Your task to perform on an android device: toggle pop-ups in chrome Image 0: 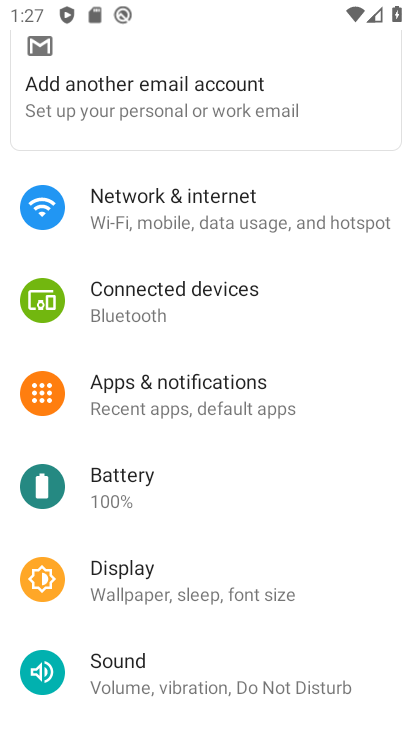
Step 0: press back button
Your task to perform on an android device: toggle pop-ups in chrome Image 1: 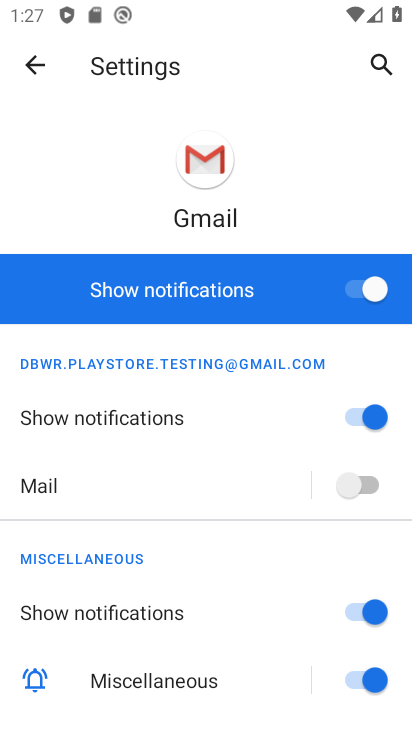
Step 1: drag from (207, 657) to (254, 154)
Your task to perform on an android device: toggle pop-ups in chrome Image 2: 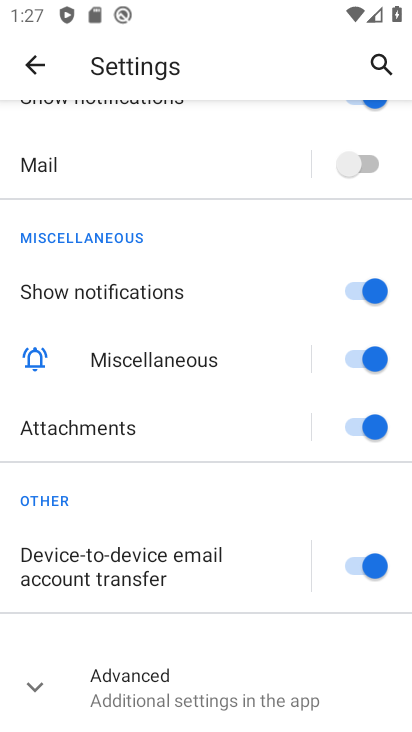
Step 2: drag from (170, 622) to (242, 152)
Your task to perform on an android device: toggle pop-ups in chrome Image 3: 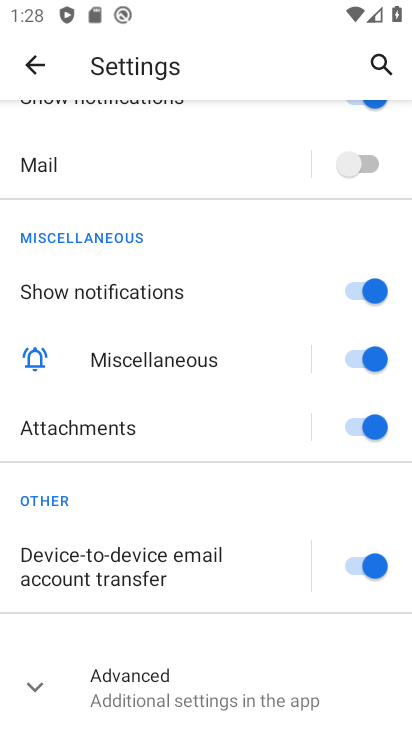
Step 3: press back button
Your task to perform on an android device: toggle pop-ups in chrome Image 4: 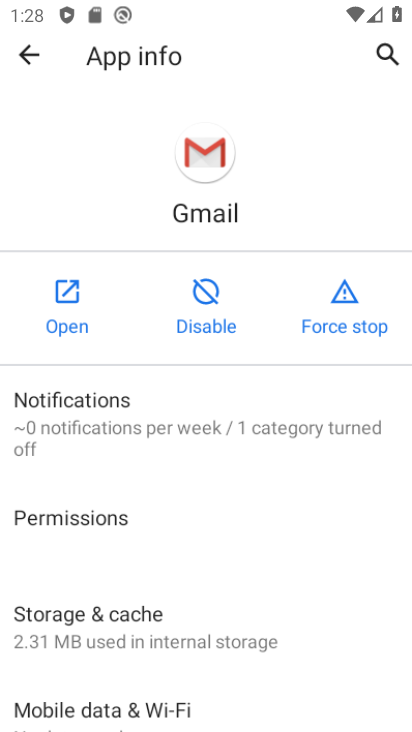
Step 4: press back button
Your task to perform on an android device: toggle pop-ups in chrome Image 5: 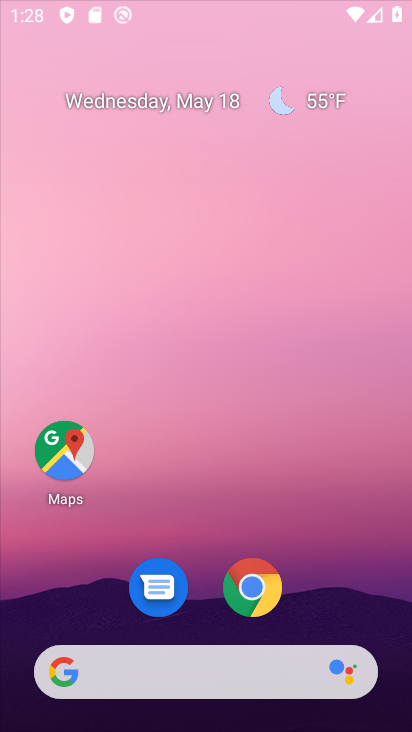
Step 5: press back button
Your task to perform on an android device: toggle pop-ups in chrome Image 6: 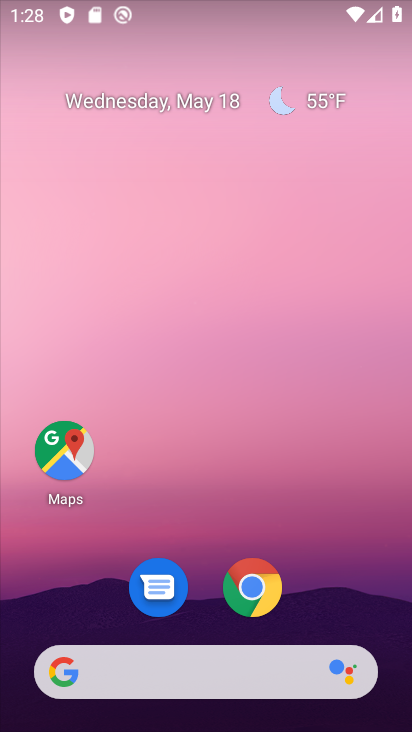
Step 6: click (256, 587)
Your task to perform on an android device: toggle pop-ups in chrome Image 7: 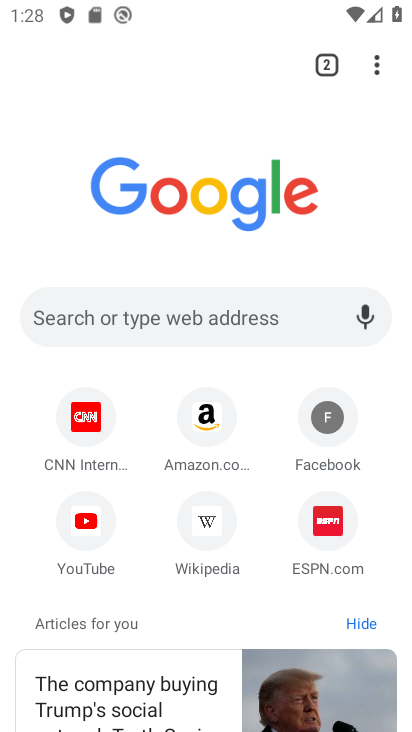
Step 7: drag from (376, 62) to (180, 540)
Your task to perform on an android device: toggle pop-ups in chrome Image 8: 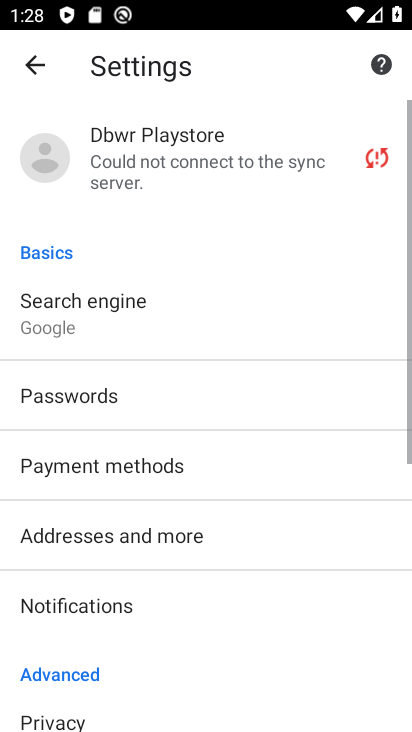
Step 8: drag from (122, 674) to (234, 145)
Your task to perform on an android device: toggle pop-ups in chrome Image 9: 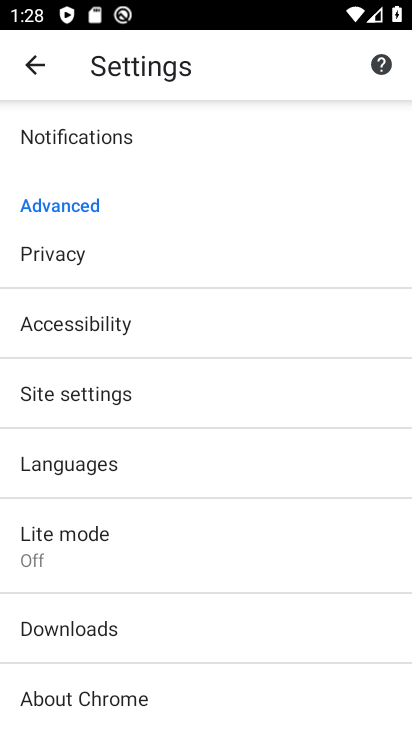
Step 9: click (76, 399)
Your task to perform on an android device: toggle pop-ups in chrome Image 10: 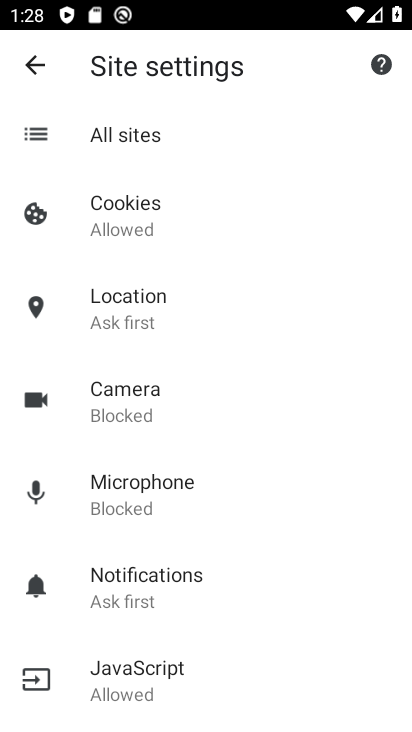
Step 10: drag from (166, 662) to (298, 127)
Your task to perform on an android device: toggle pop-ups in chrome Image 11: 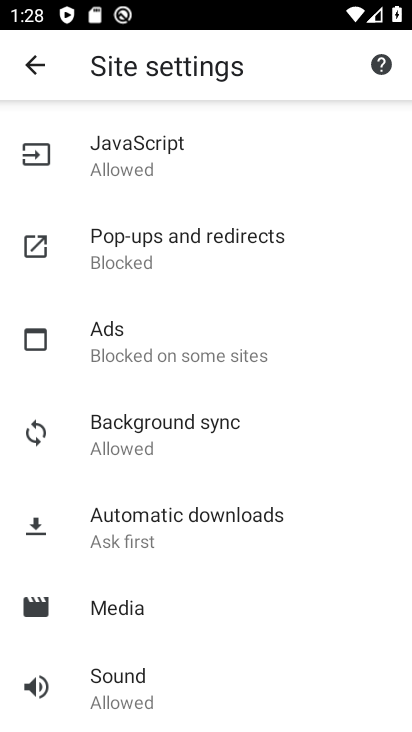
Step 11: click (158, 248)
Your task to perform on an android device: toggle pop-ups in chrome Image 12: 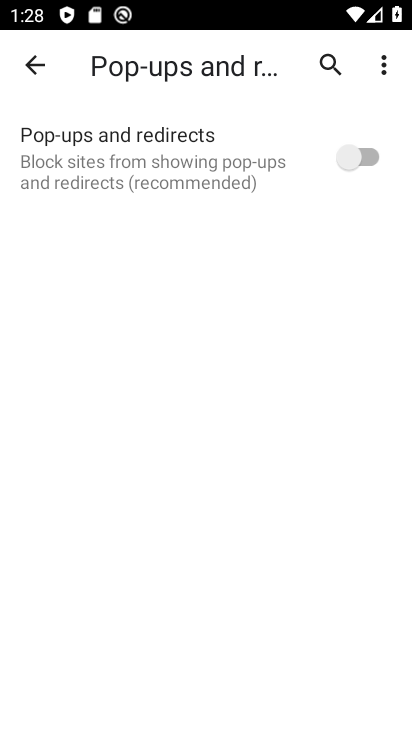
Step 12: click (354, 149)
Your task to perform on an android device: toggle pop-ups in chrome Image 13: 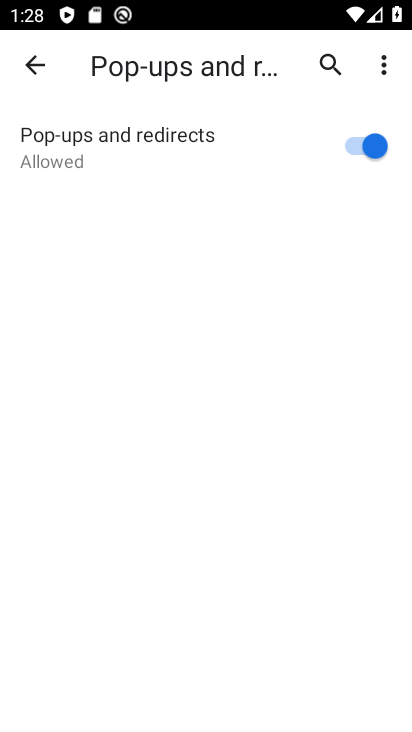
Step 13: task complete